Your task to perform on an android device: Look up the best gaming headphones on Best Buy Image 0: 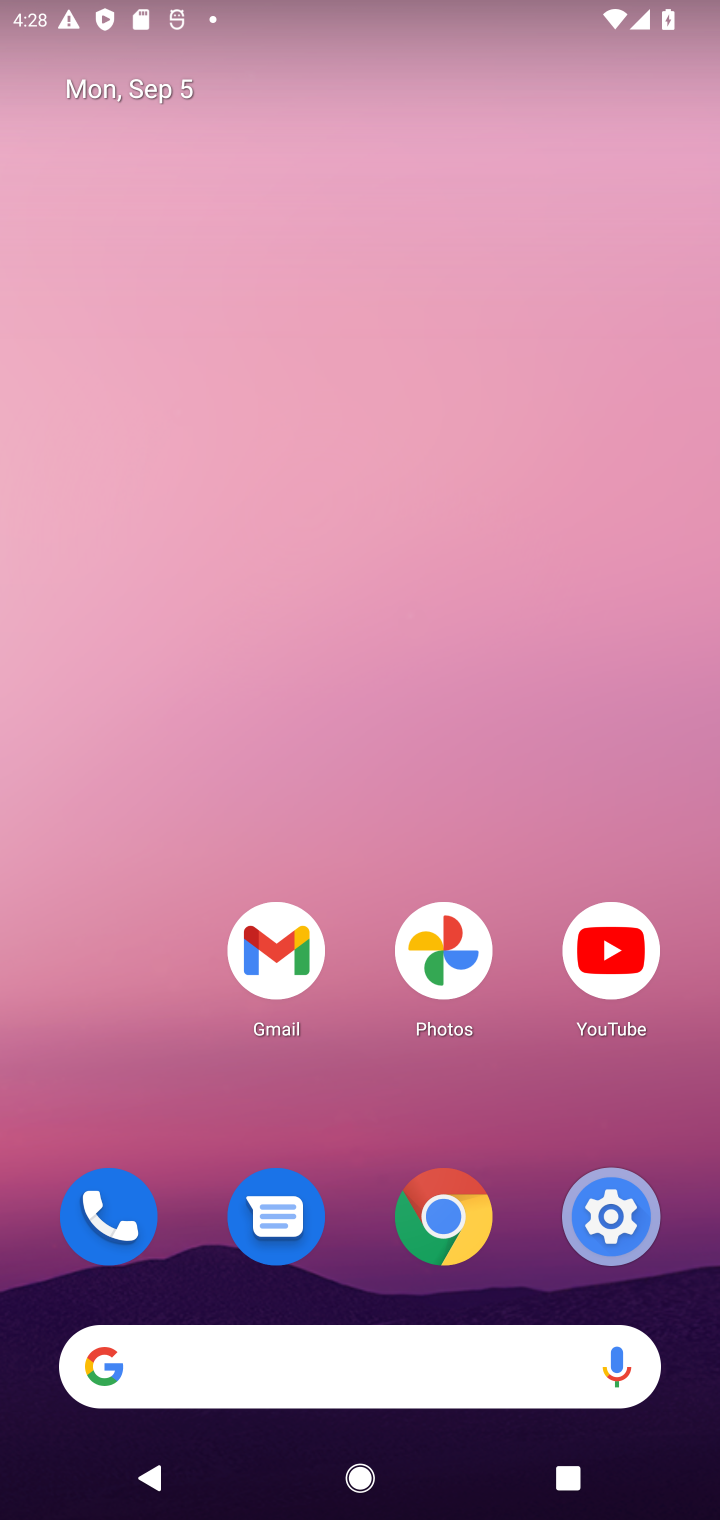
Step 0: press home button
Your task to perform on an android device: Look up the best gaming headphones on Best Buy Image 1: 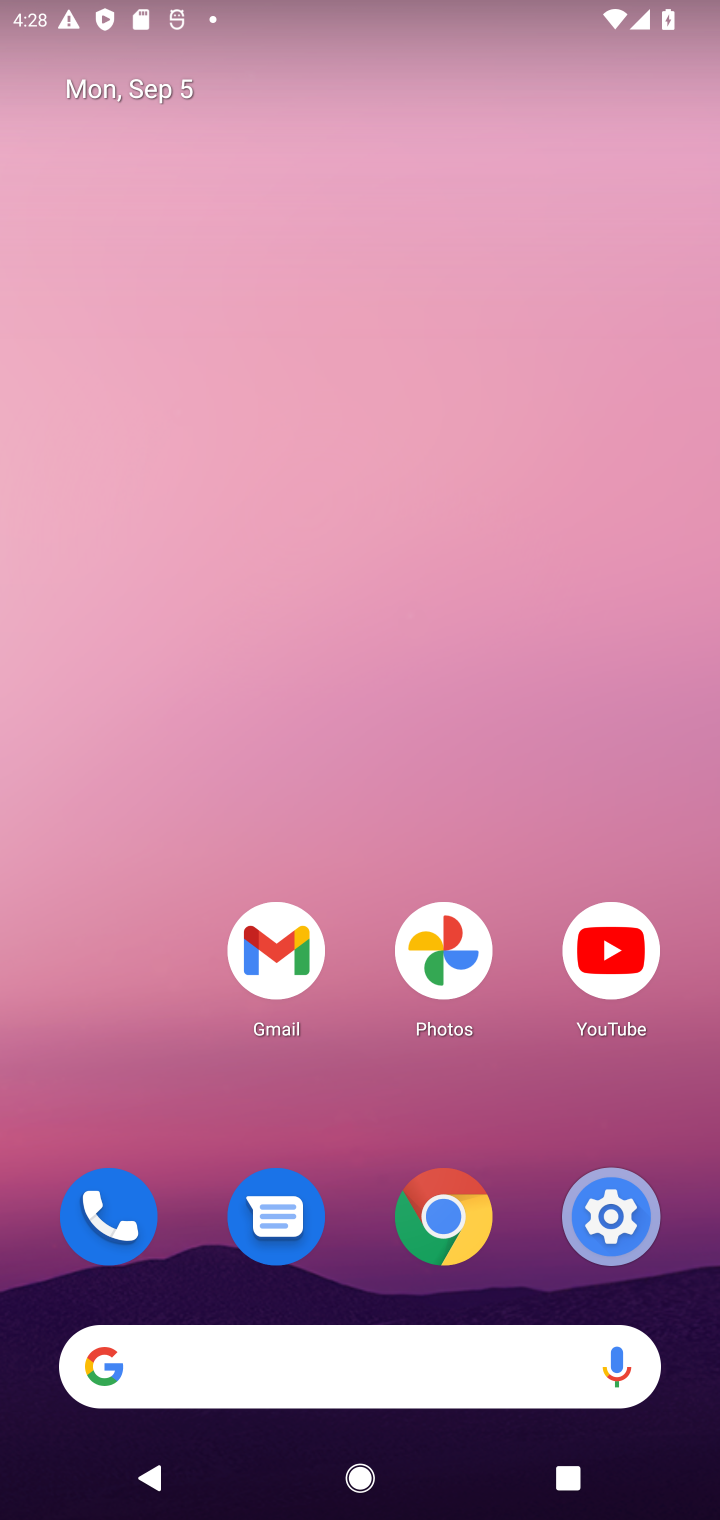
Step 1: click (96, 1363)
Your task to perform on an android device: Look up the best gaming headphones on Best Buy Image 2: 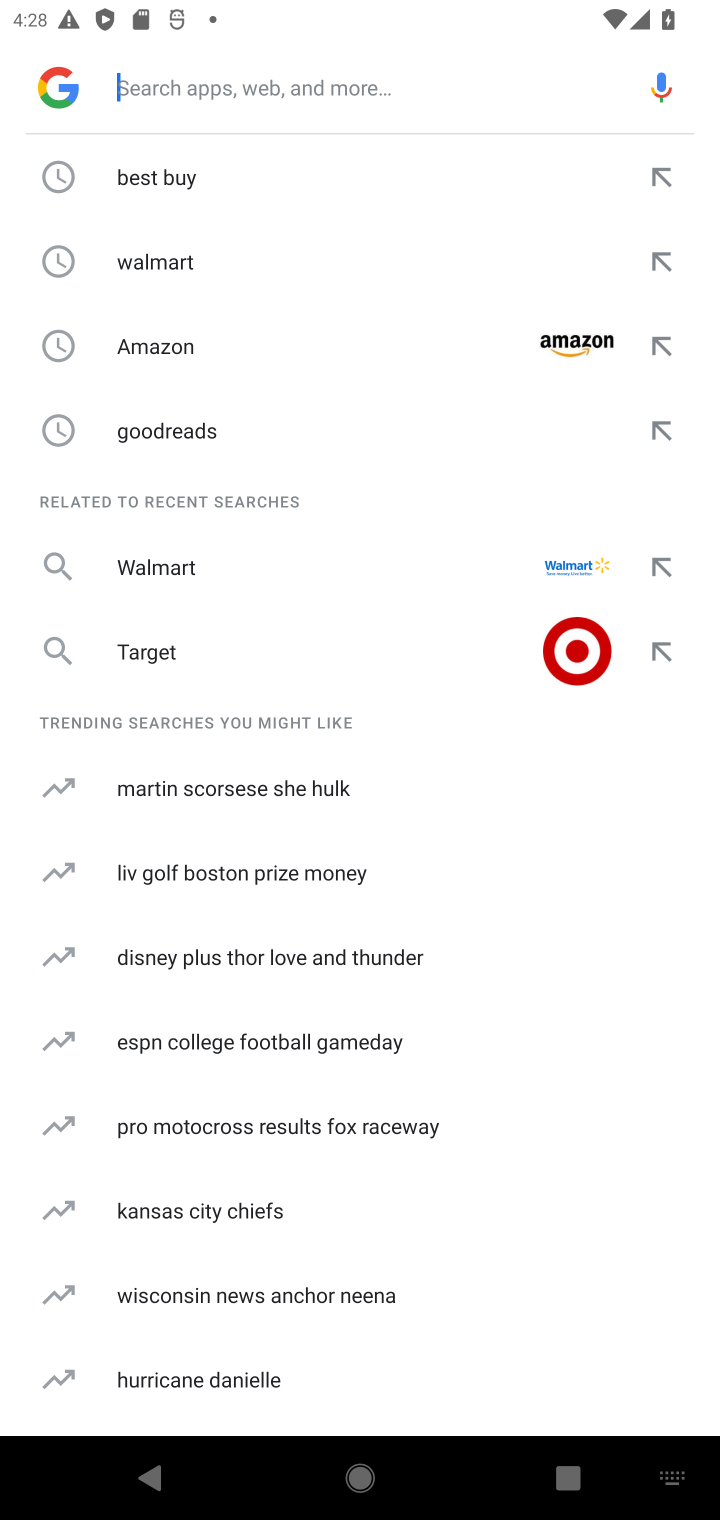
Step 2: type "Best Buy"
Your task to perform on an android device: Look up the best gaming headphones on Best Buy Image 3: 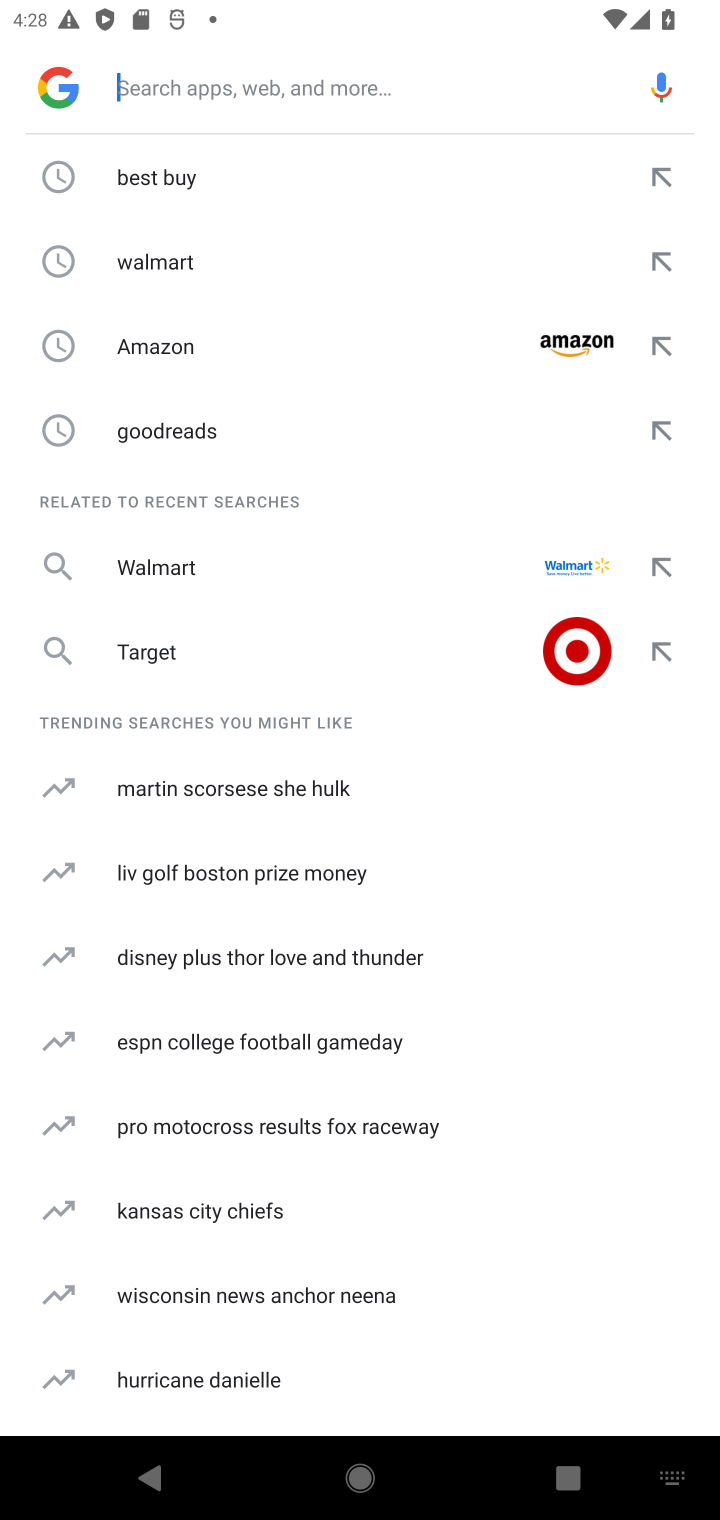
Step 3: click (145, 82)
Your task to perform on an android device: Look up the best gaming headphones on Best Buy Image 4: 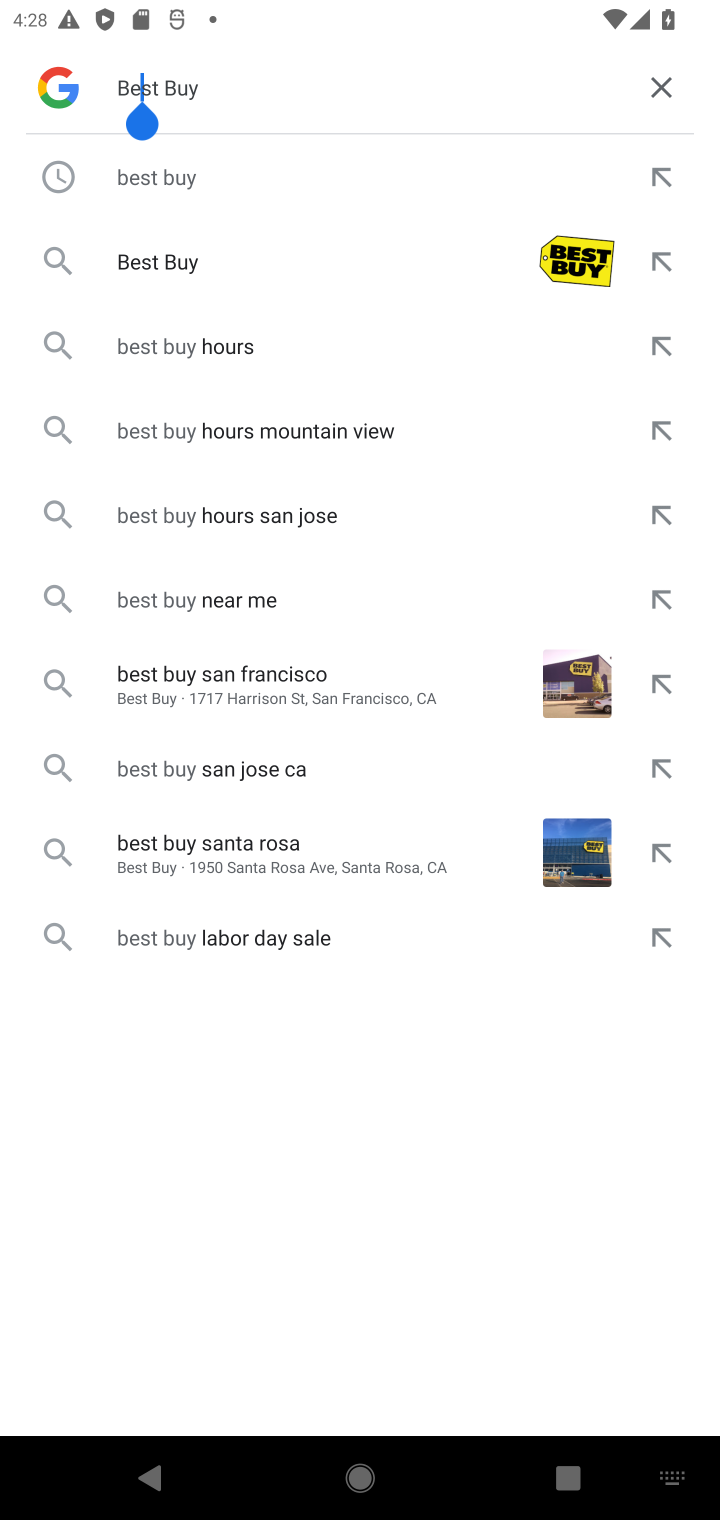
Step 4: press enter
Your task to perform on an android device: Look up the best gaming headphones on Best Buy Image 5: 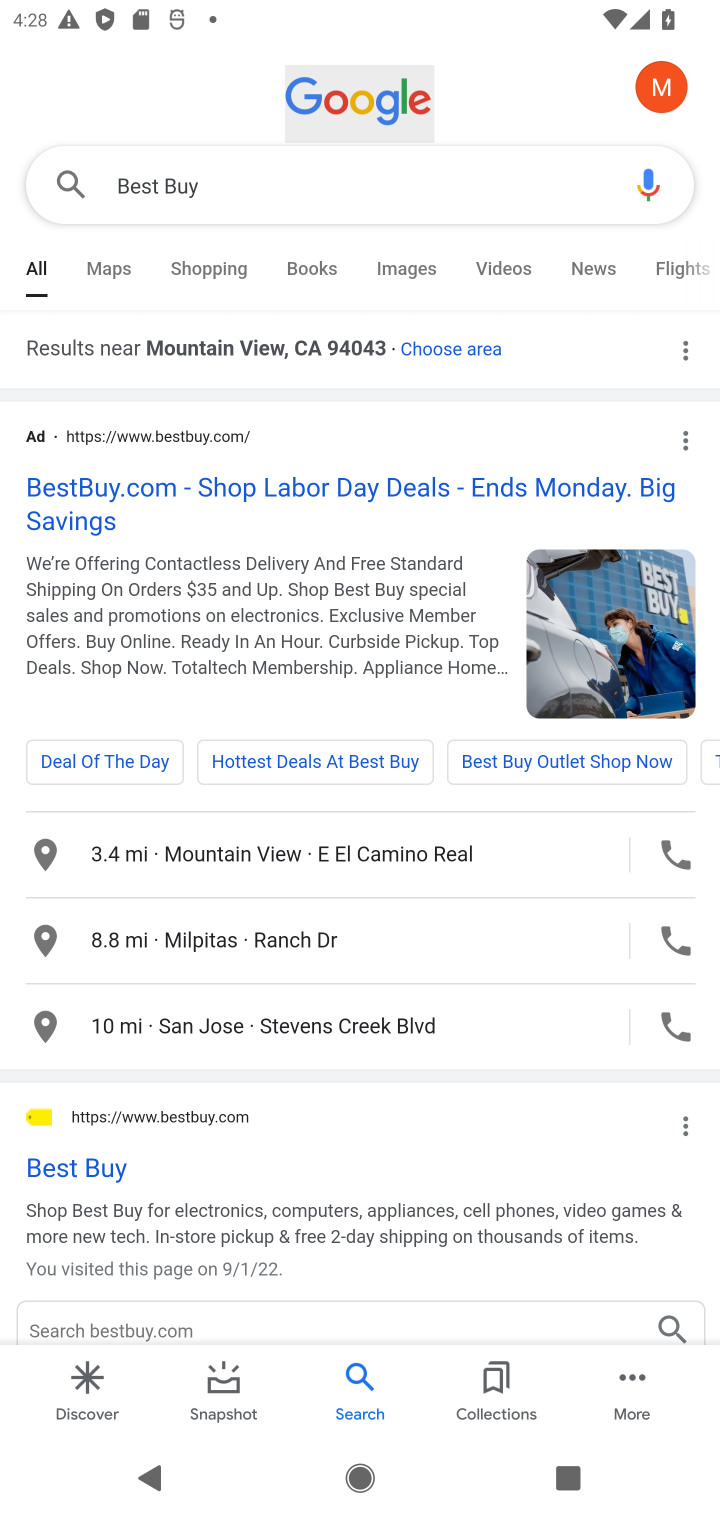
Step 5: click (62, 1168)
Your task to perform on an android device: Look up the best gaming headphones on Best Buy Image 6: 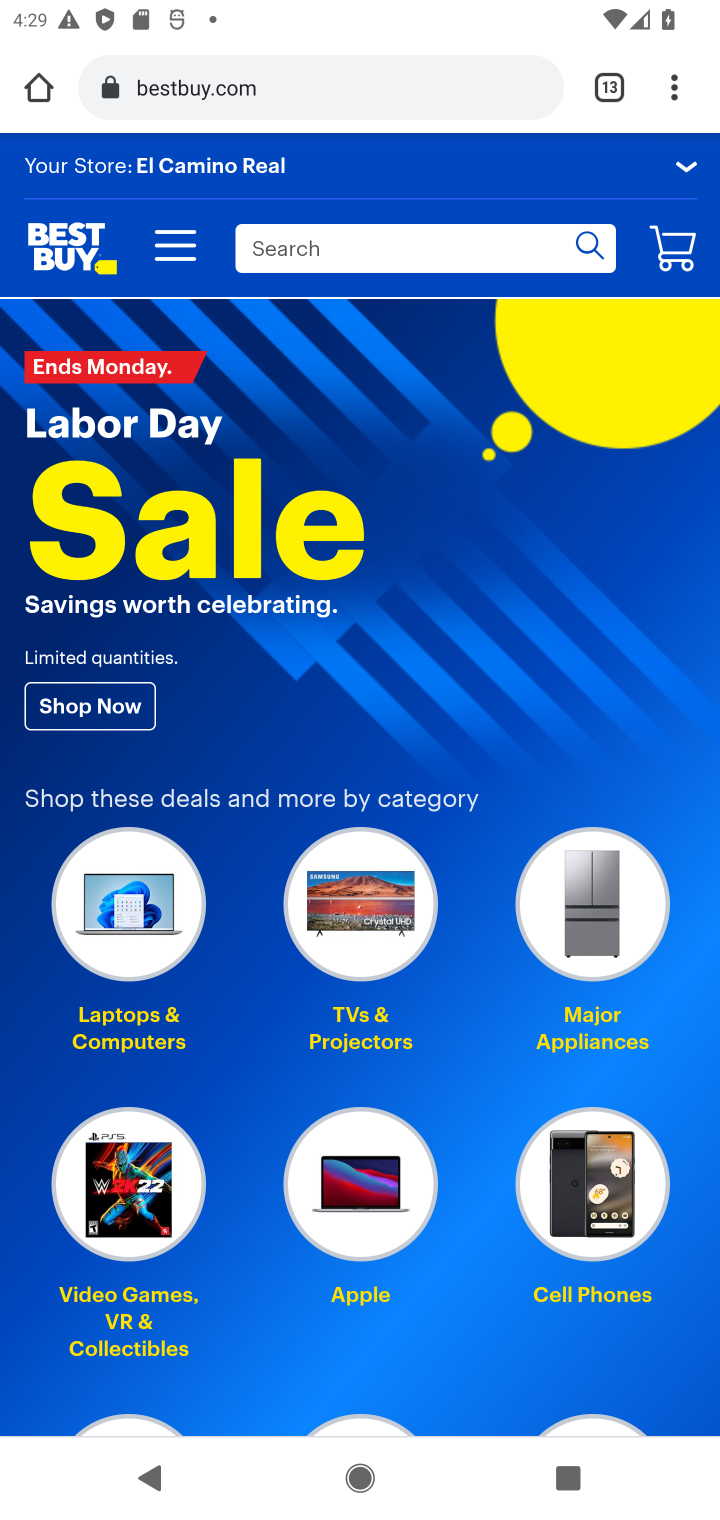
Step 6: click (358, 244)
Your task to perform on an android device: Look up the best gaming headphones on Best Buy Image 7: 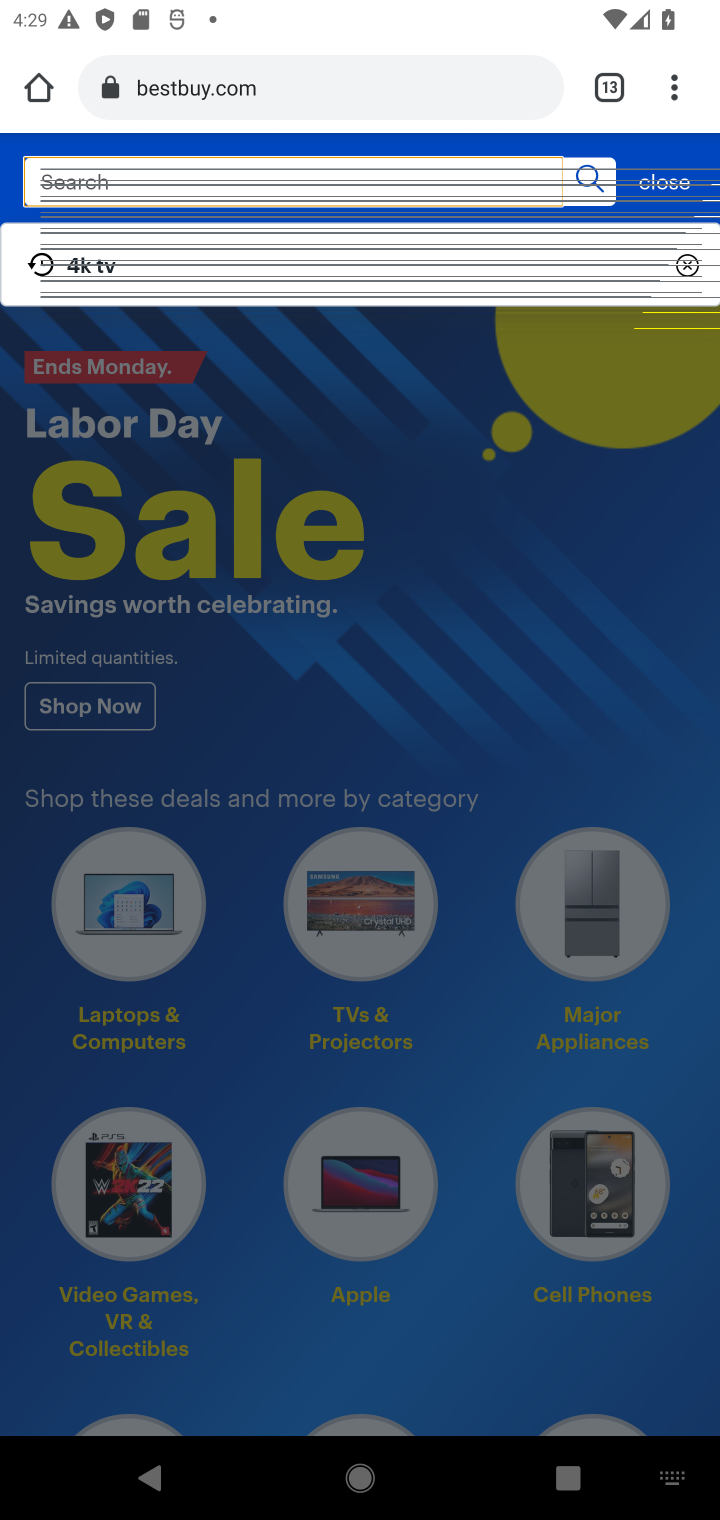
Step 7: click (178, 173)
Your task to perform on an android device: Look up the best gaming headphones on Best Buy Image 8: 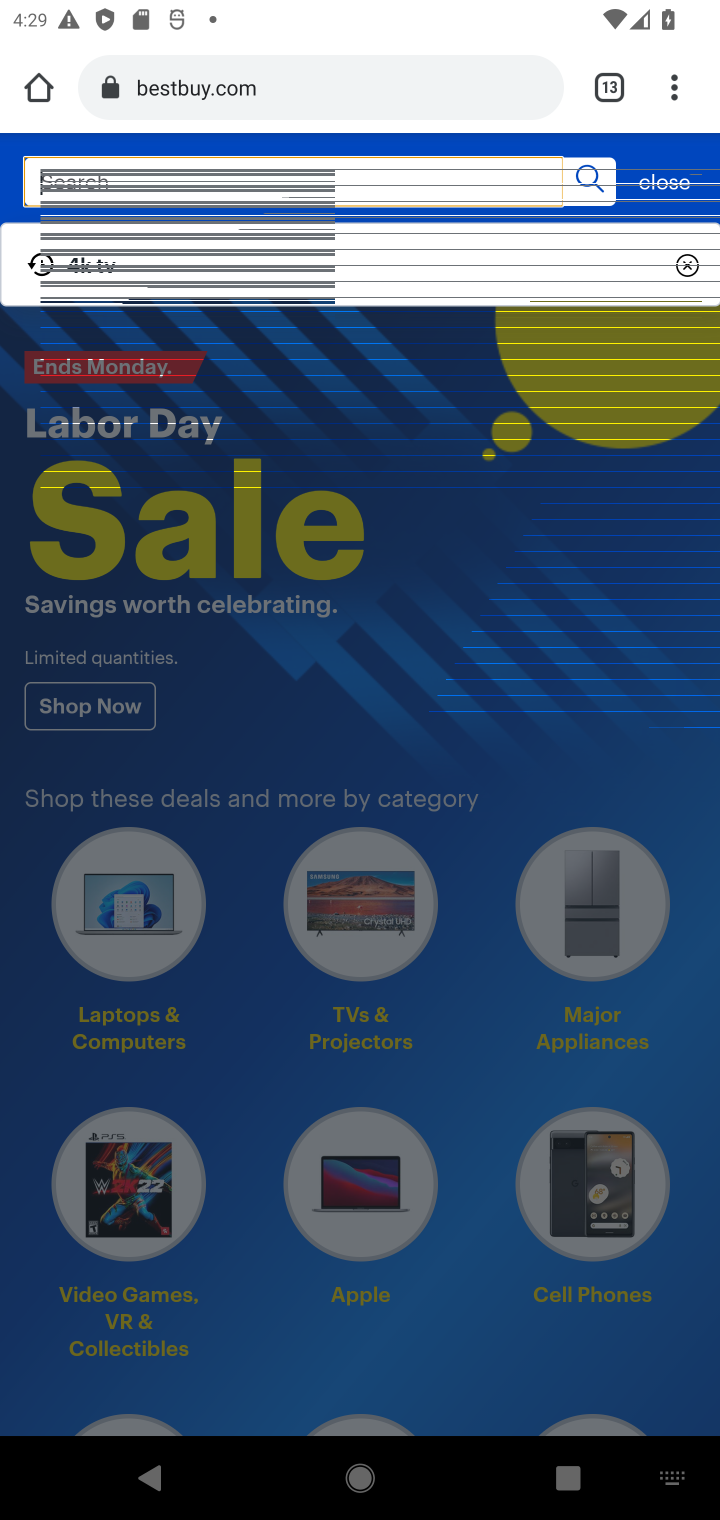
Step 8: type "gaming headphones"
Your task to perform on an android device: Look up the best gaming headphones on Best Buy Image 9: 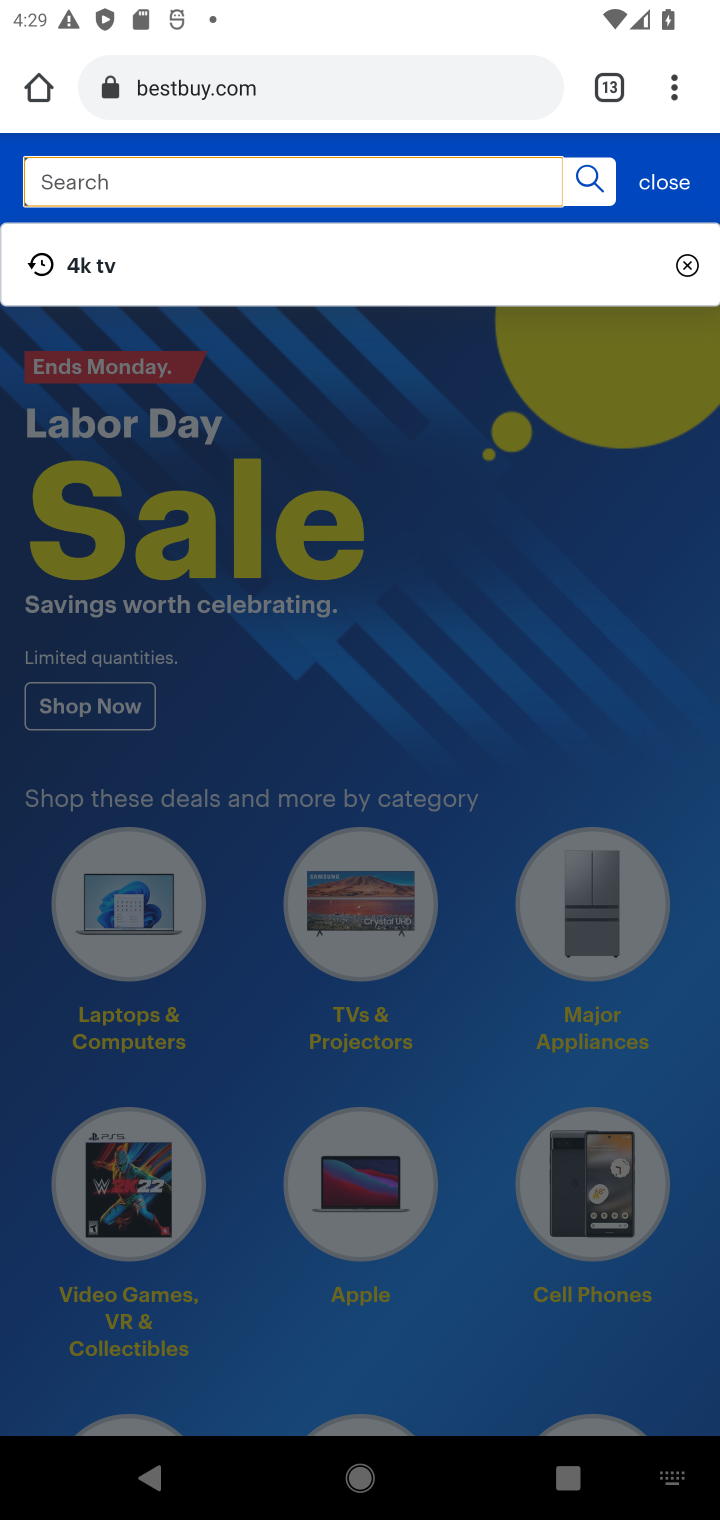
Step 9: click (184, 176)
Your task to perform on an android device: Look up the best gaming headphones on Best Buy Image 10: 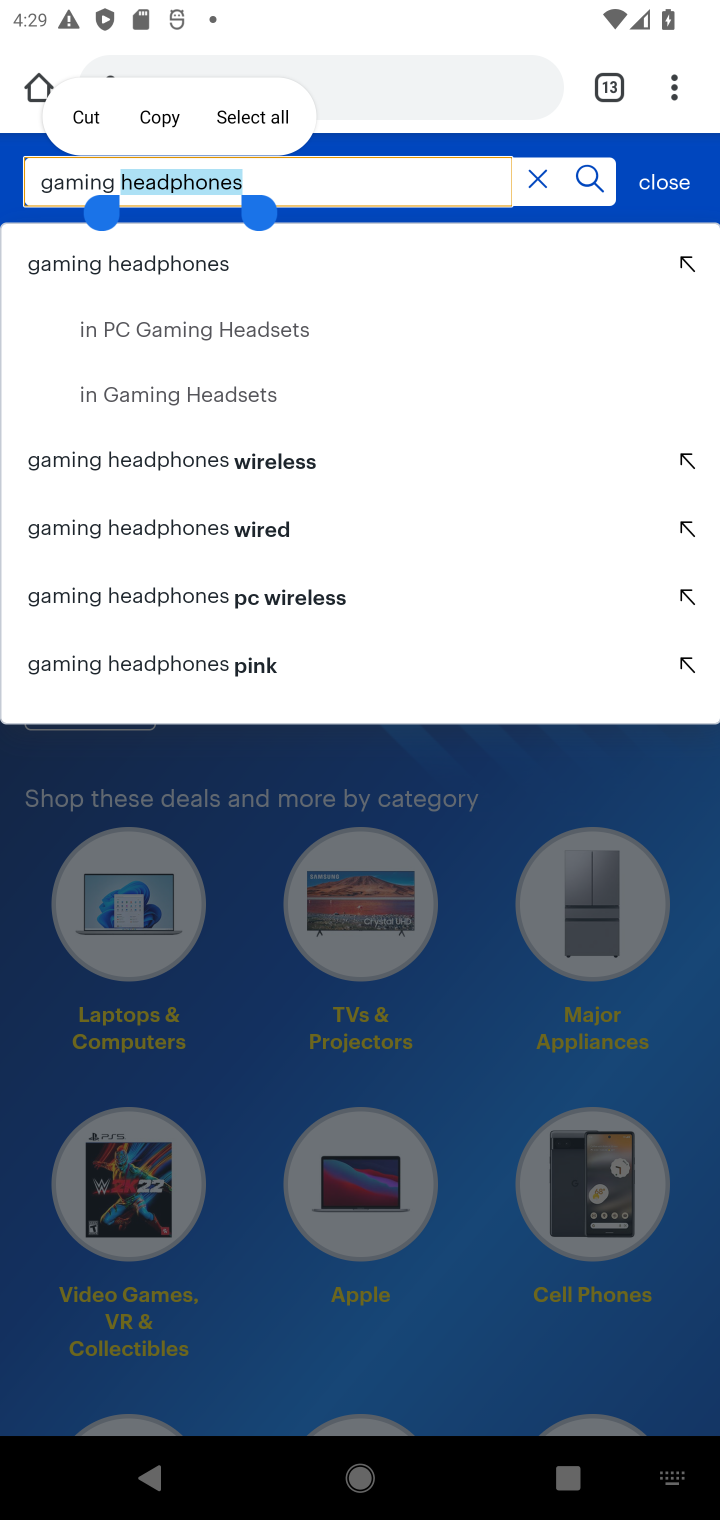
Step 10: press enter
Your task to perform on an android device: Look up the best gaming headphones on Best Buy Image 11: 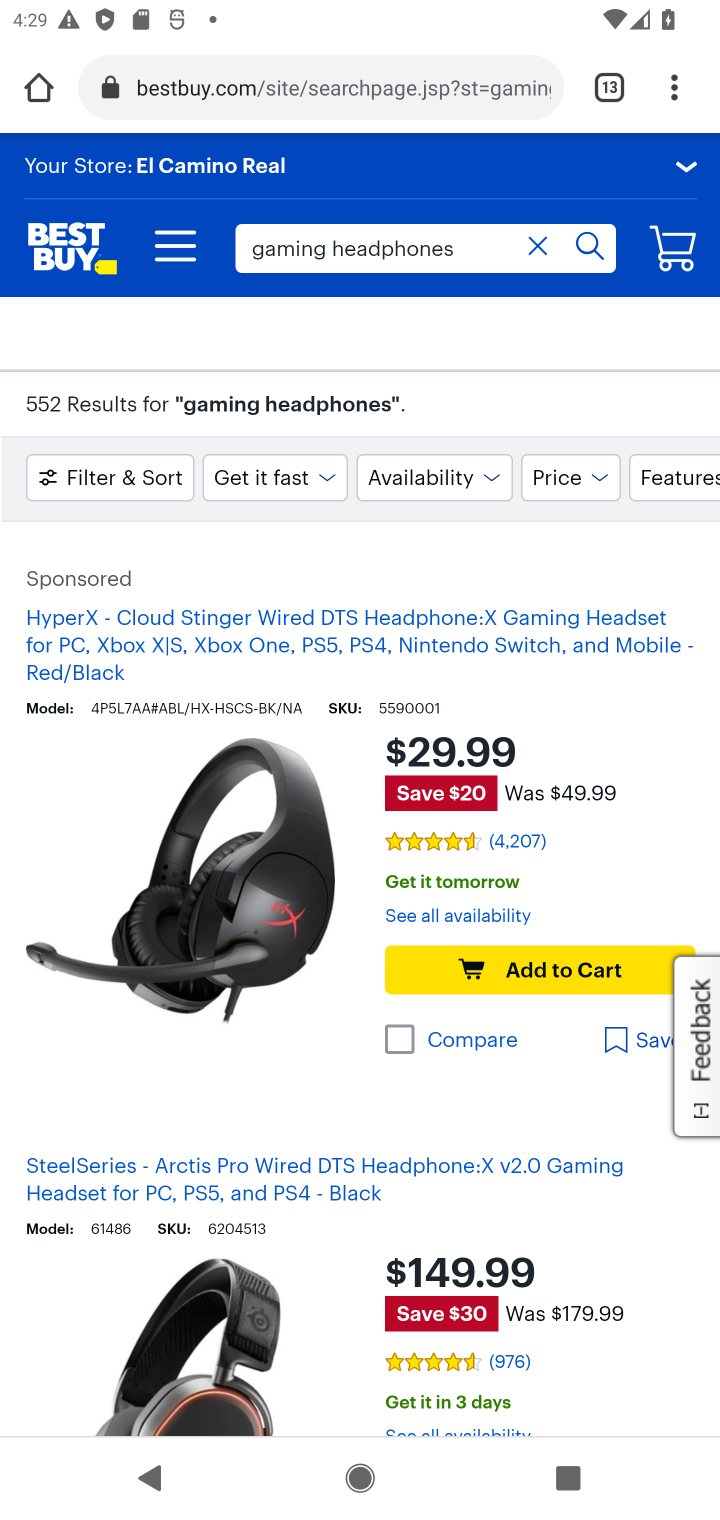
Step 11: task complete